Your task to perform on an android device: Open Google Chrome and click the shortcut for Amazon.com Image 0: 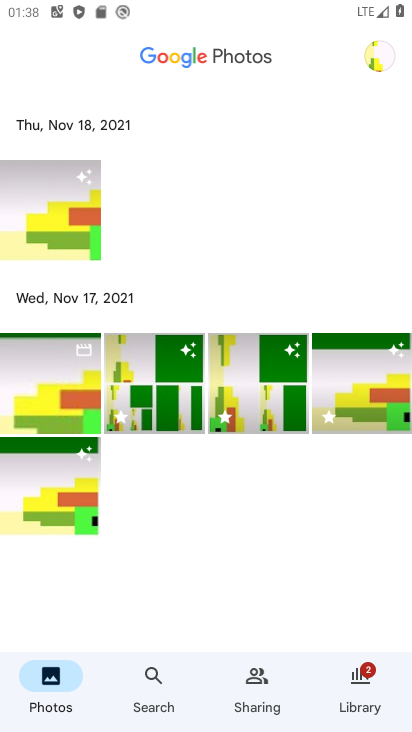
Step 0: press home button
Your task to perform on an android device: Open Google Chrome and click the shortcut for Amazon.com Image 1: 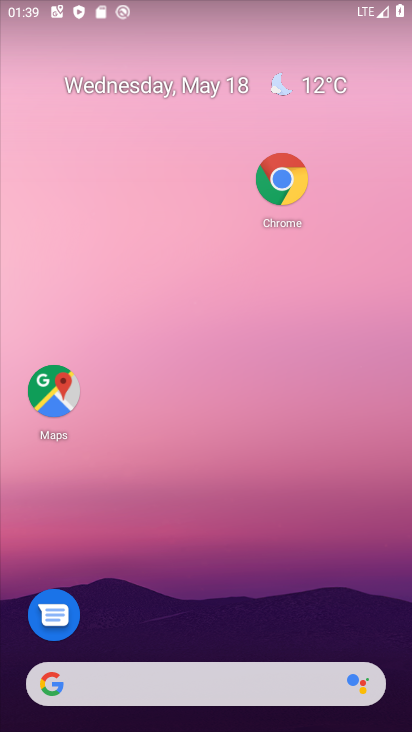
Step 1: click (280, 187)
Your task to perform on an android device: Open Google Chrome and click the shortcut for Amazon.com Image 2: 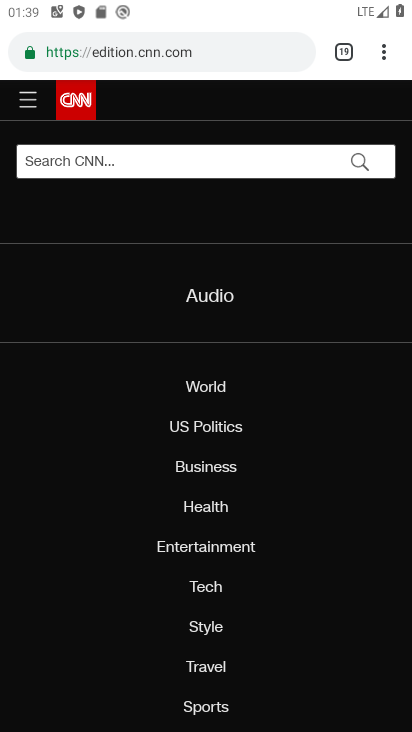
Step 2: drag from (385, 54) to (291, 103)
Your task to perform on an android device: Open Google Chrome and click the shortcut for Amazon.com Image 3: 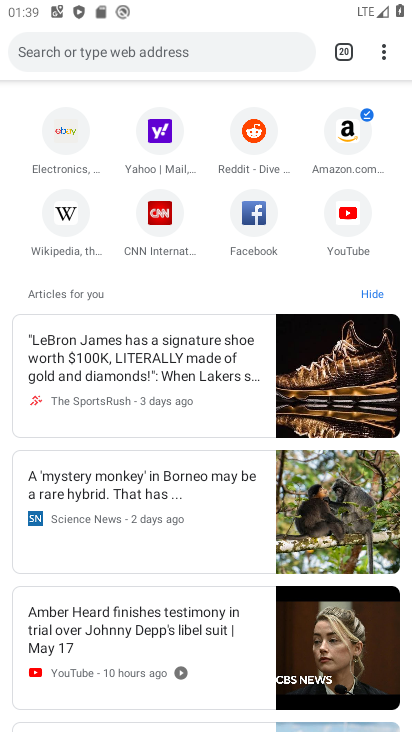
Step 3: click (347, 137)
Your task to perform on an android device: Open Google Chrome and click the shortcut for Amazon.com Image 4: 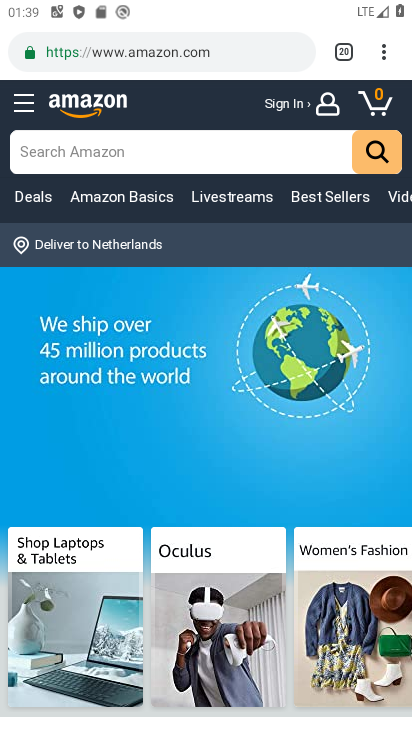
Step 4: task complete